Your task to perform on an android device: Open sound settings Image 0: 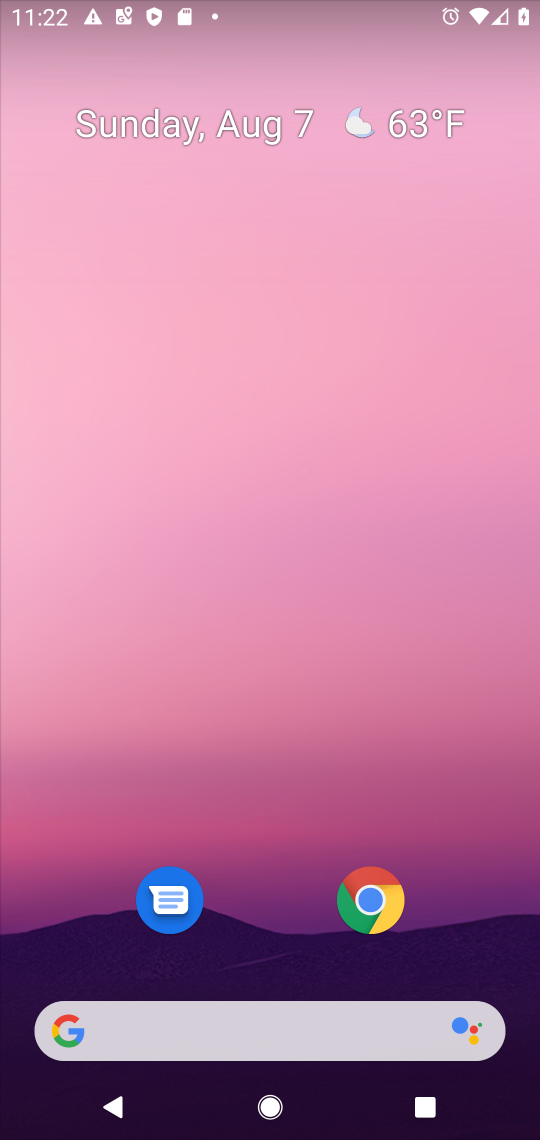
Step 0: press home button
Your task to perform on an android device: Open sound settings Image 1: 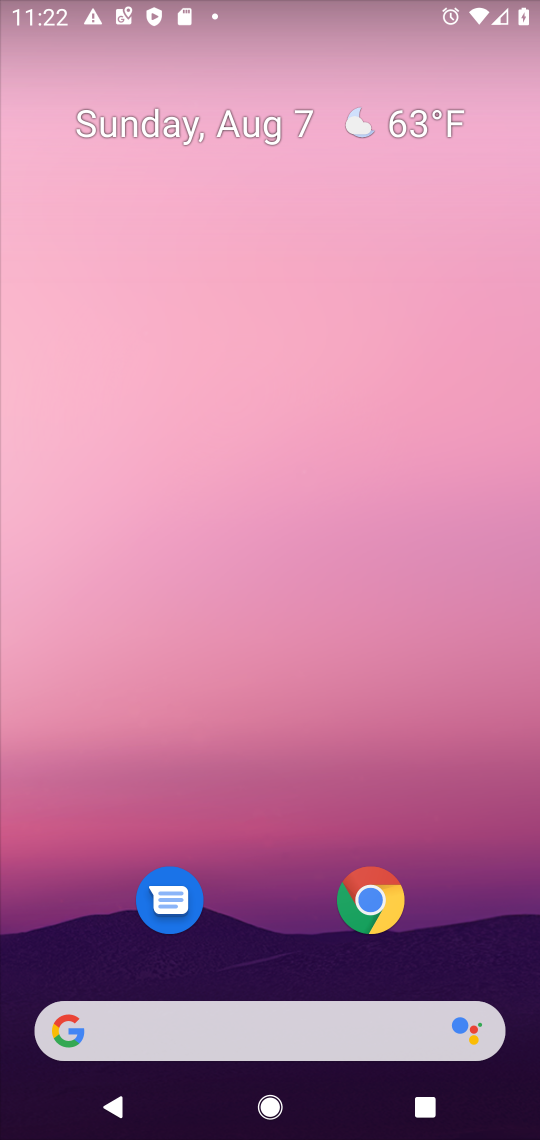
Step 1: drag from (277, 960) to (369, 0)
Your task to perform on an android device: Open sound settings Image 2: 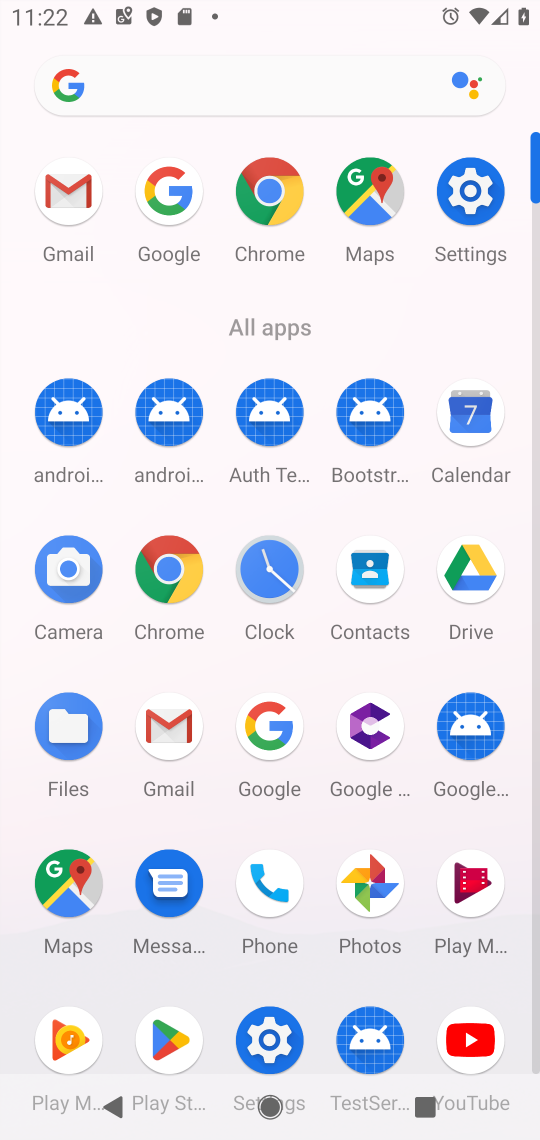
Step 2: click (470, 186)
Your task to perform on an android device: Open sound settings Image 3: 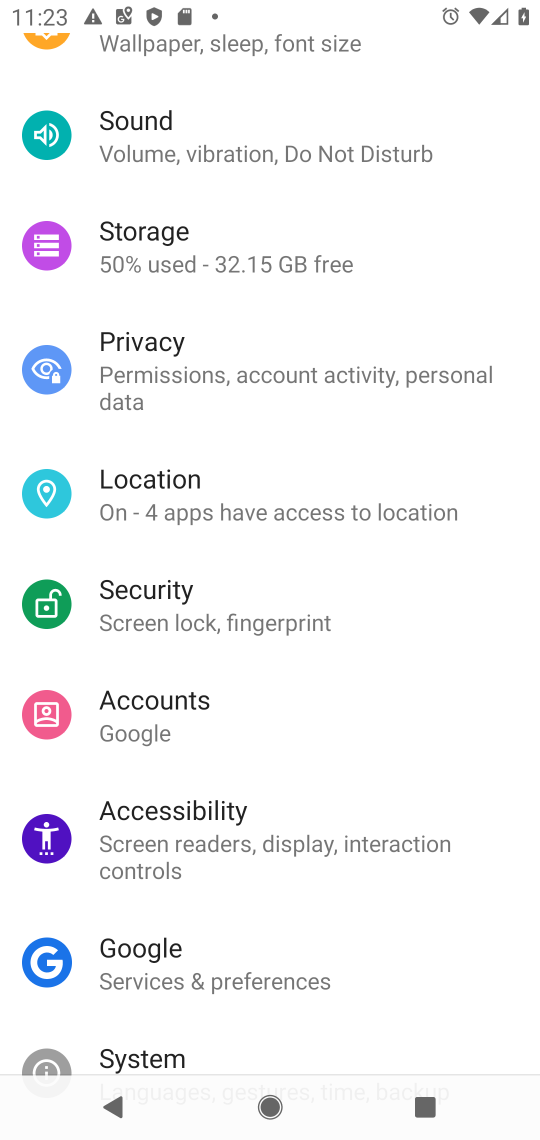
Step 3: click (201, 118)
Your task to perform on an android device: Open sound settings Image 4: 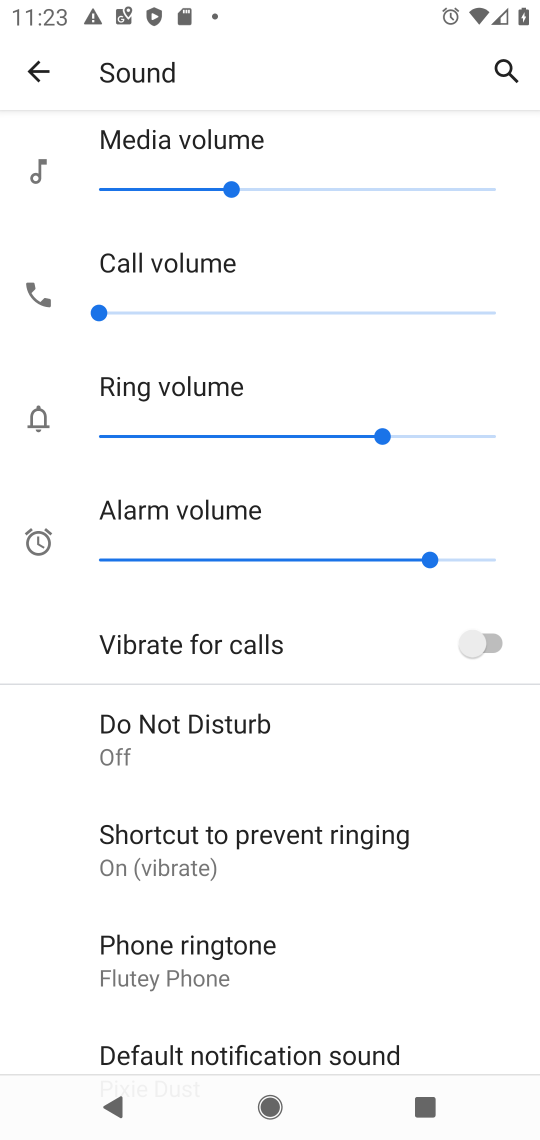
Step 4: drag from (317, 986) to (346, 339)
Your task to perform on an android device: Open sound settings Image 5: 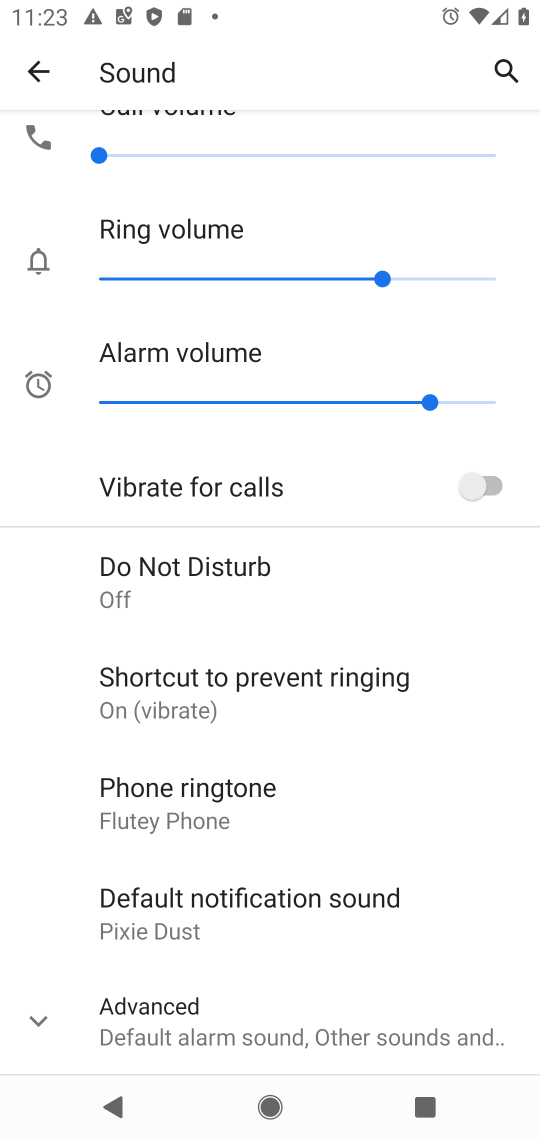
Step 5: click (31, 1019)
Your task to perform on an android device: Open sound settings Image 6: 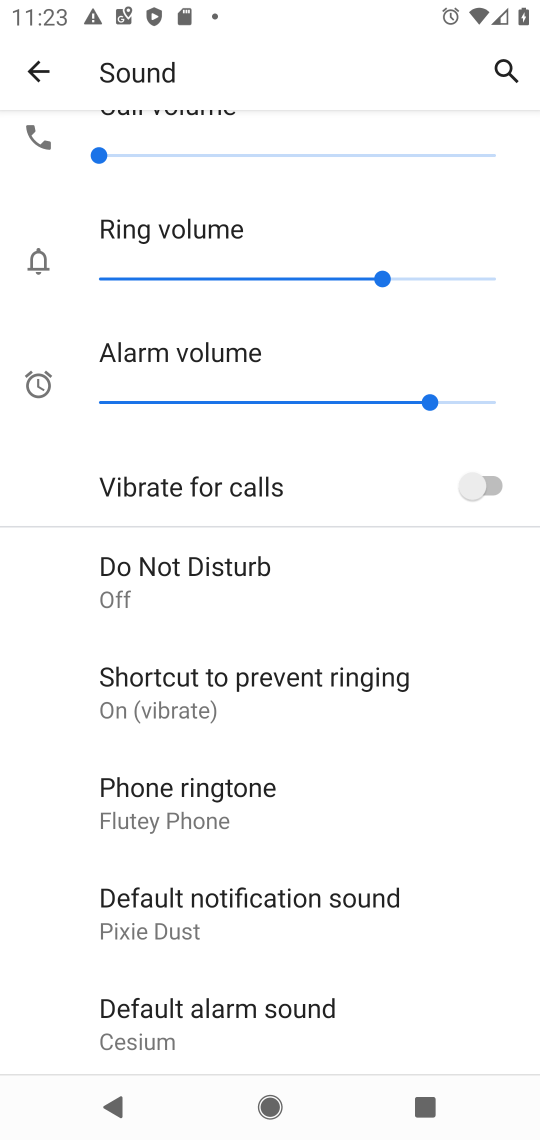
Step 6: task complete